Your task to perform on an android device: clear all cookies in the chrome app Image 0: 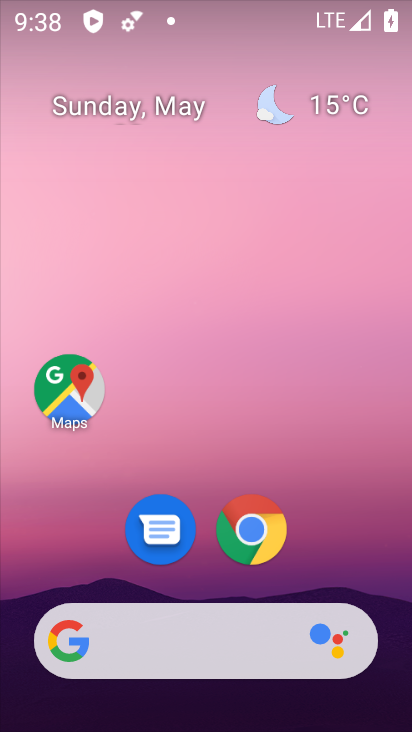
Step 0: drag from (176, 584) to (182, 63)
Your task to perform on an android device: clear all cookies in the chrome app Image 1: 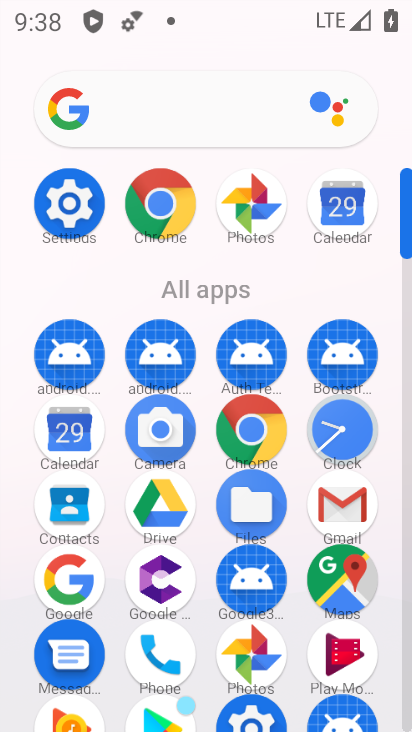
Step 1: click (252, 442)
Your task to perform on an android device: clear all cookies in the chrome app Image 2: 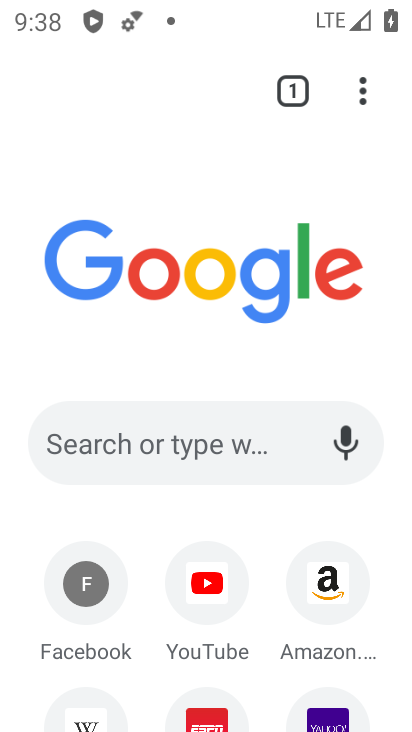
Step 2: drag from (364, 88) to (255, 565)
Your task to perform on an android device: clear all cookies in the chrome app Image 3: 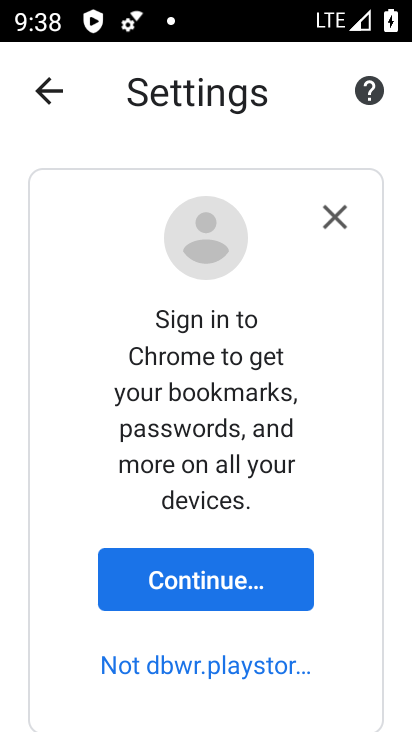
Step 3: drag from (54, 503) to (1, 167)
Your task to perform on an android device: clear all cookies in the chrome app Image 4: 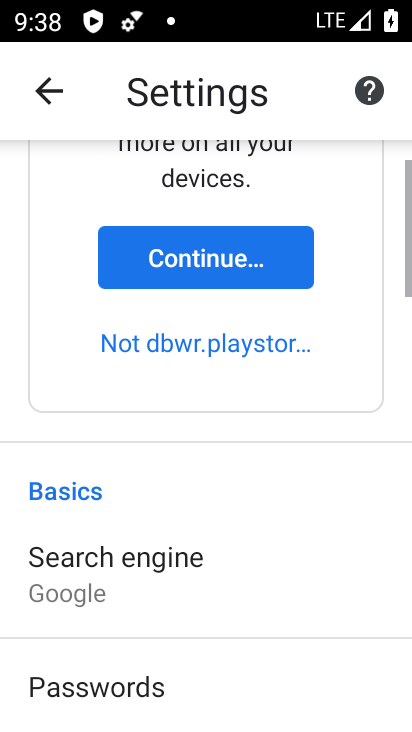
Step 4: drag from (36, 521) to (104, 86)
Your task to perform on an android device: clear all cookies in the chrome app Image 5: 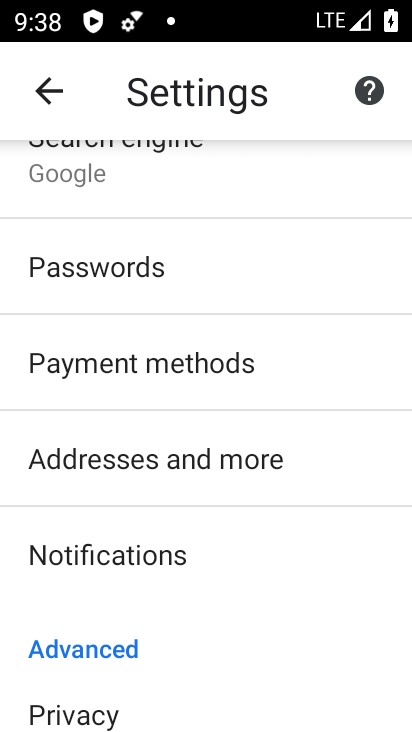
Step 5: click (137, 718)
Your task to perform on an android device: clear all cookies in the chrome app Image 6: 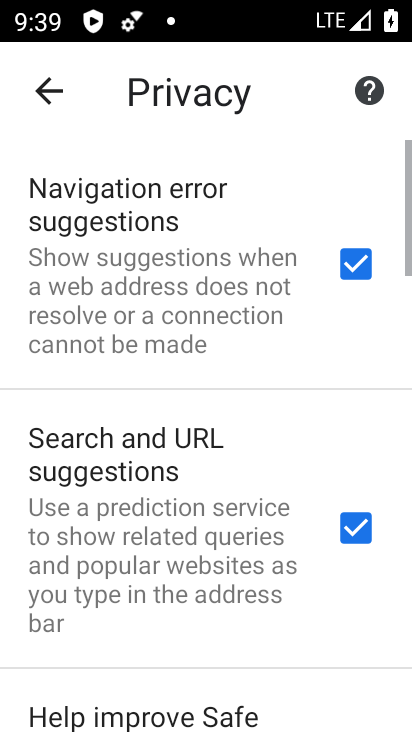
Step 6: drag from (117, 698) to (79, 13)
Your task to perform on an android device: clear all cookies in the chrome app Image 7: 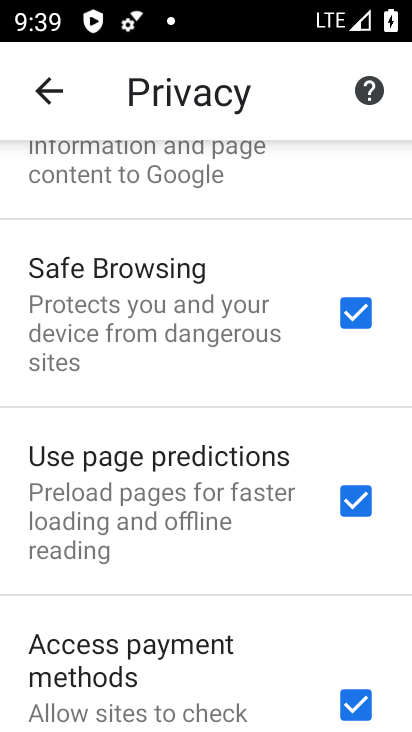
Step 7: drag from (186, 659) to (197, 151)
Your task to perform on an android device: clear all cookies in the chrome app Image 8: 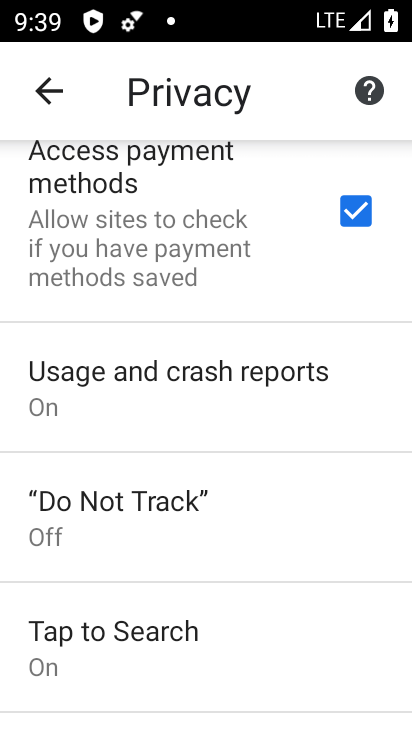
Step 8: drag from (210, 637) to (218, 63)
Your task to perform on an android device: clear all cookies in the chrome app Image 9: 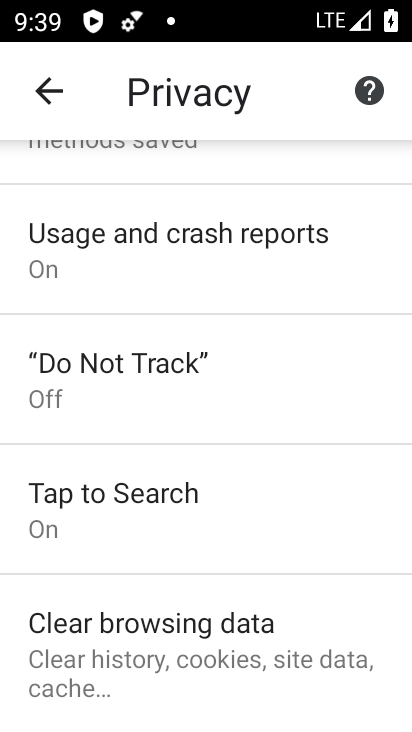
Step 9: click (205, 664)
Your task to perform on an android device: clear all cookies in the chrome app Image 10: 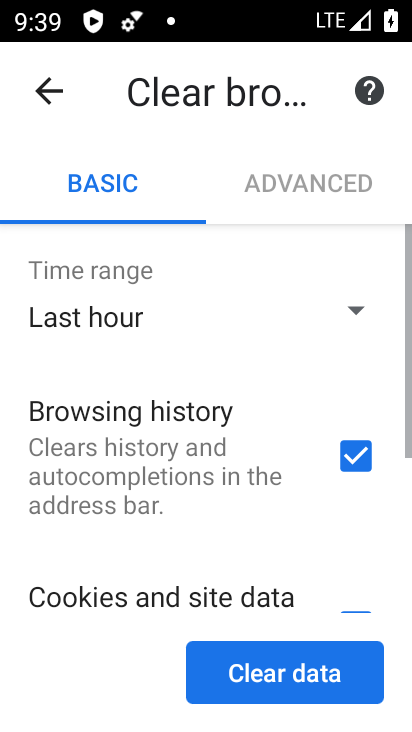
Step 10: click (282, 698)
Your task to perform on an android device: clear all cookies in the chrome app Image 11: 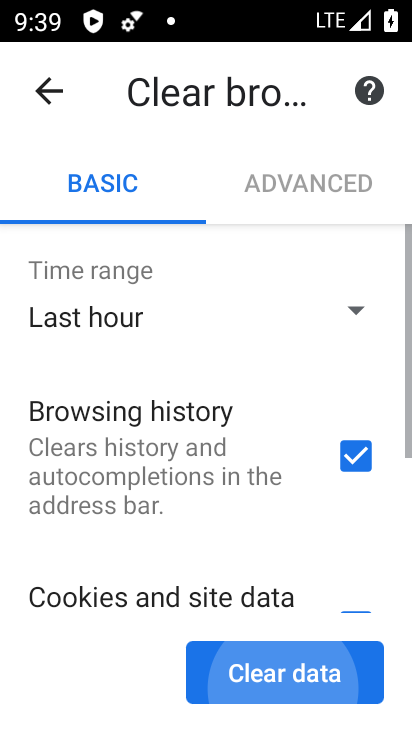
Step 11: click (282, 688)
Your task to perform on an android device: clear all cookies in the chrome app Image 12: 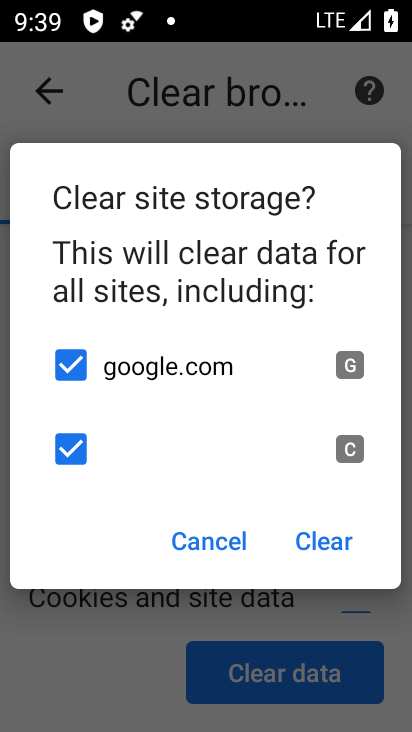
Step 12: click (318, 541)
Your task to perform on an android device: clear all cookies in the chrome app Image 13: 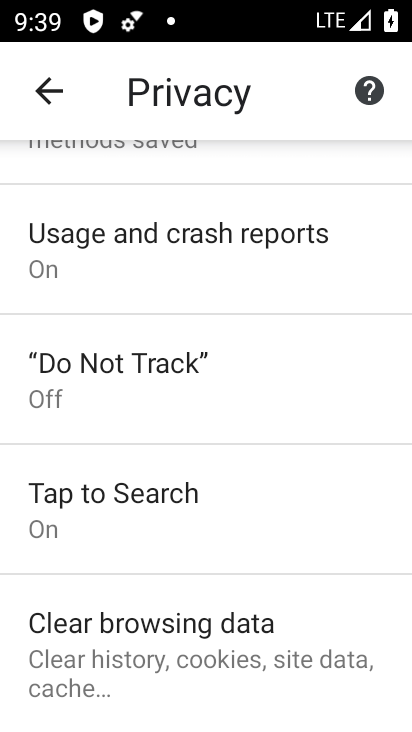
Step 13: task complete